Your task to perform on an android device: toggle notifications settings in the gmail app Image 0: 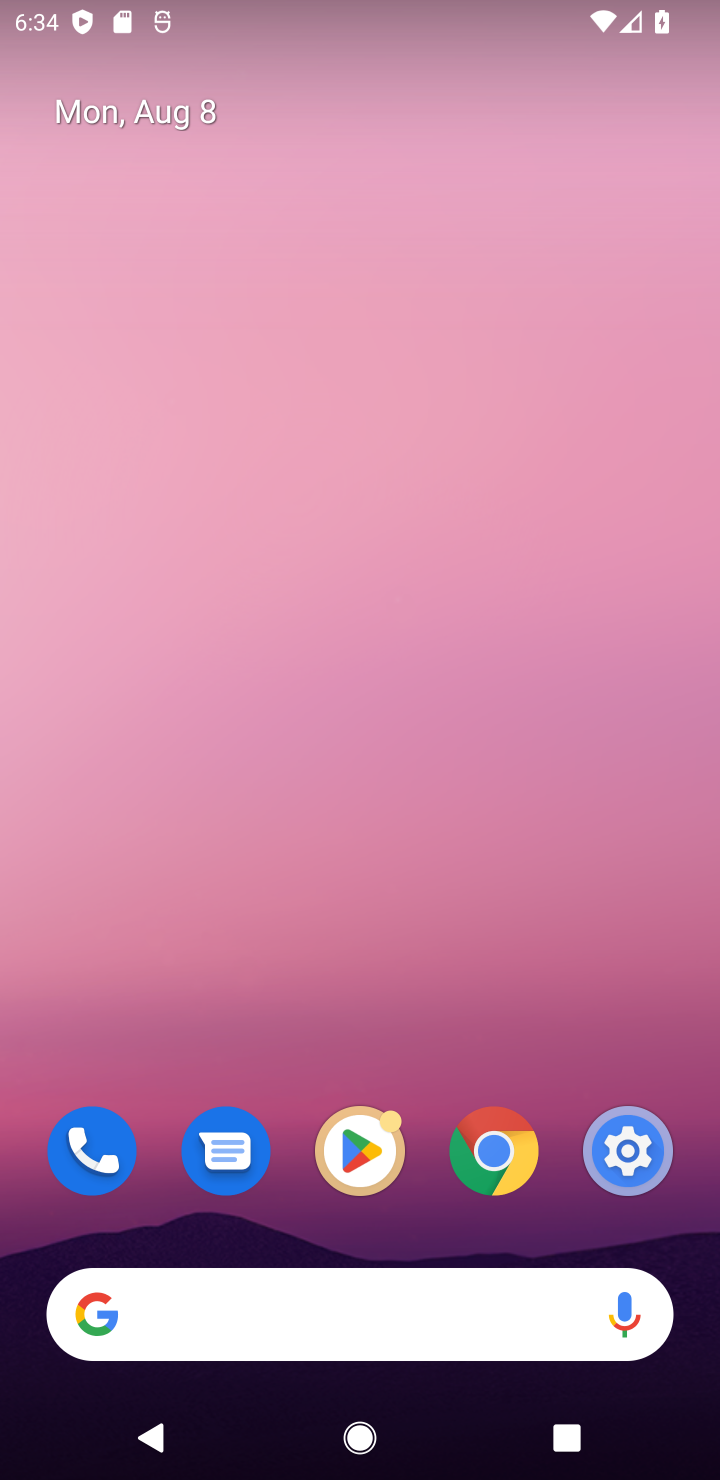
Step 0: drag from (202, 900) to (264, 59)
Your task to perform on an android device: toggle notifications settings in the gmail app Image 1: 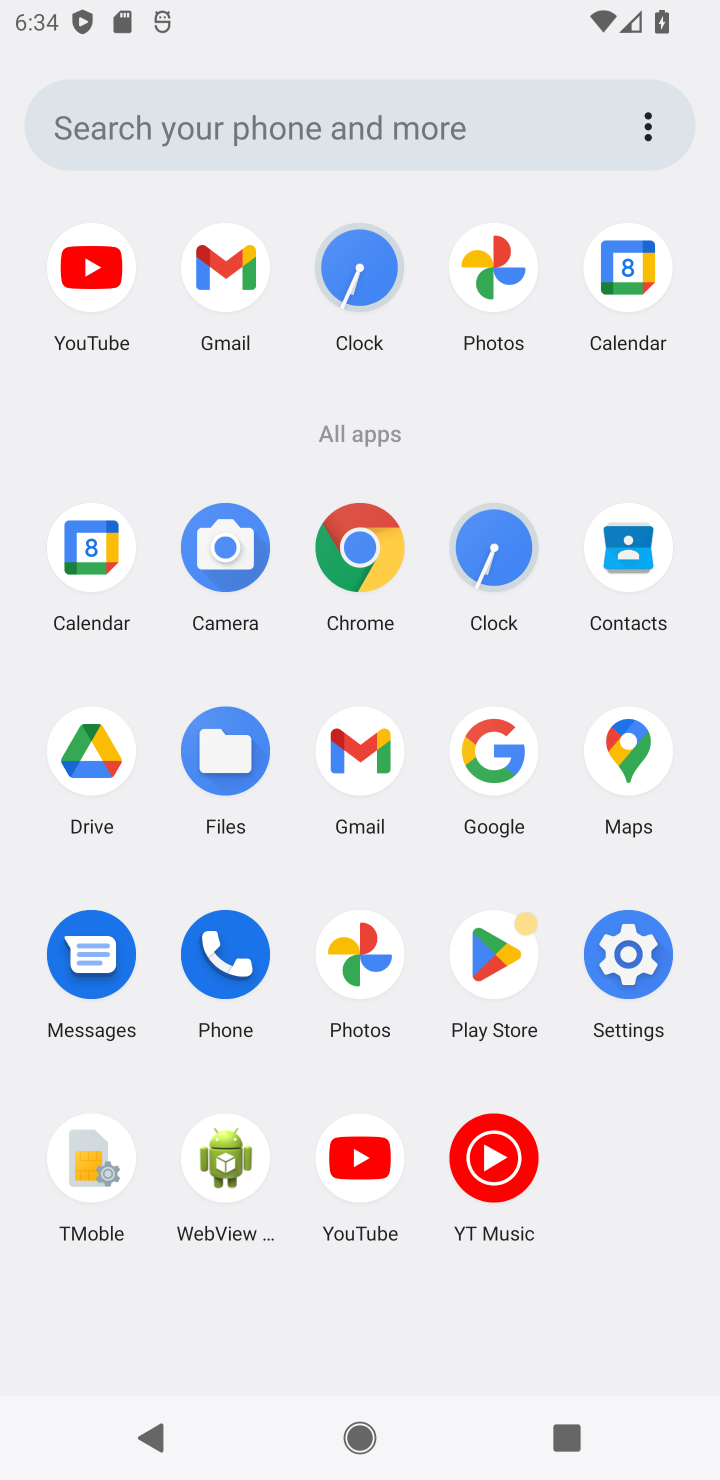
Step 1: click (212, 269)
Your task to perform on an android device: toggle notifications settings in the gmail app Image 2: 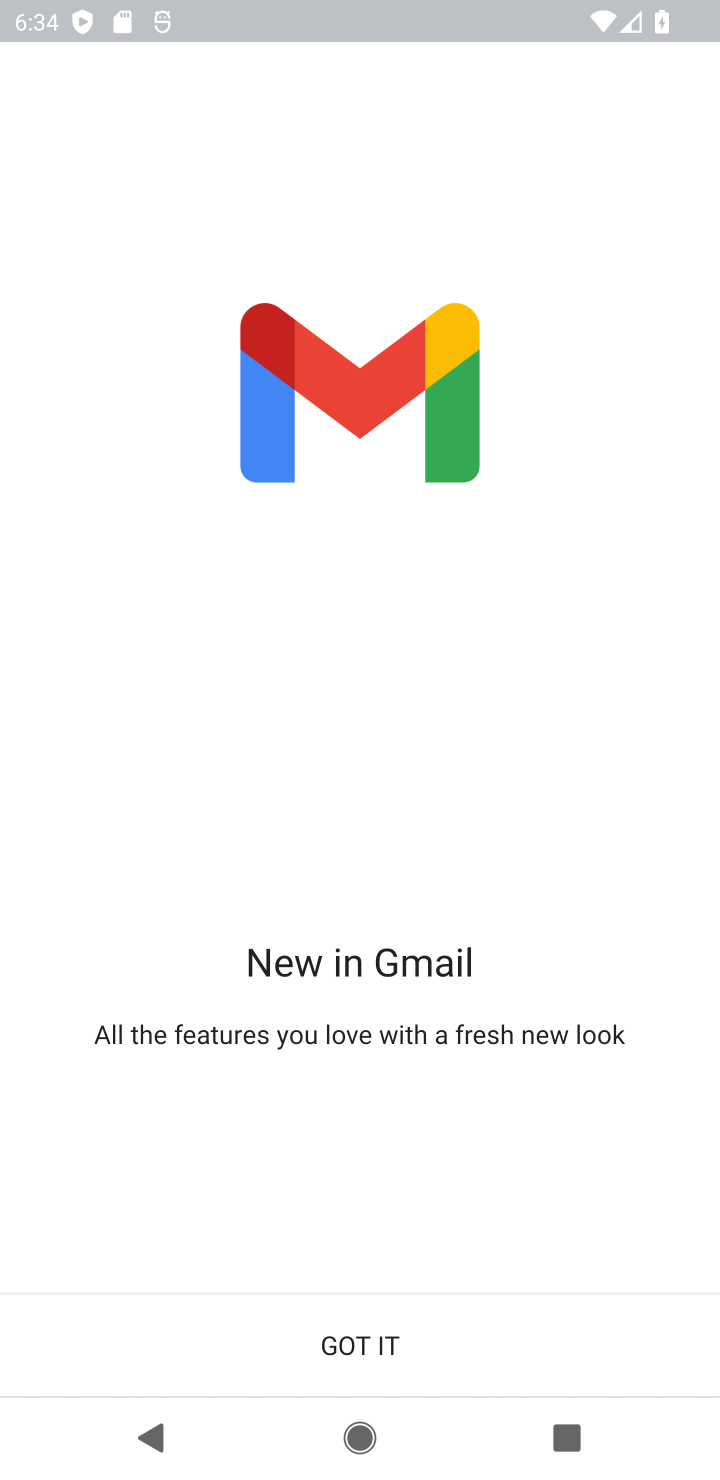
Step 2: click (428, 1369)
Your task to perform on an android device: toggle notifications settings in the gmail app Image 3: 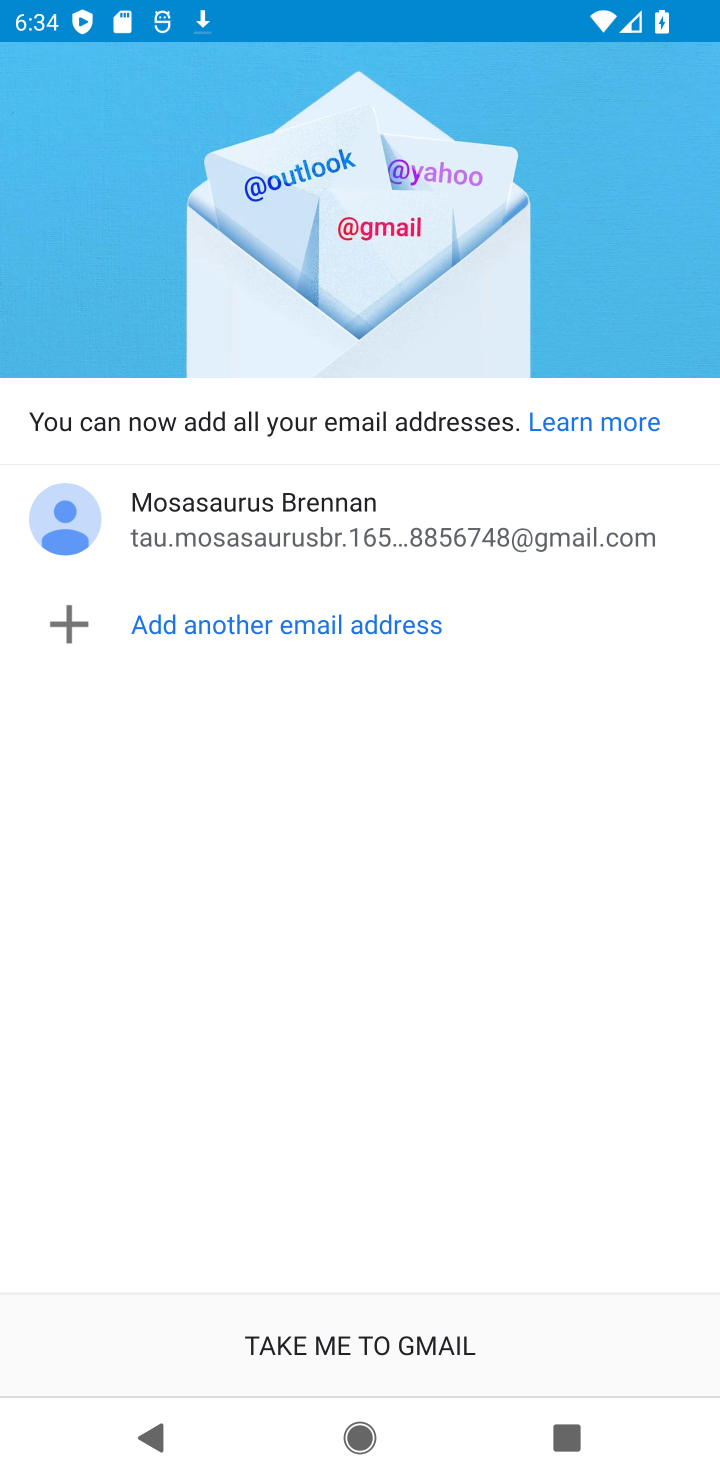
Step 3: click (468, 1361)
Your task to perform on an android device: toggle notifications settings in the gmail app Image 4: 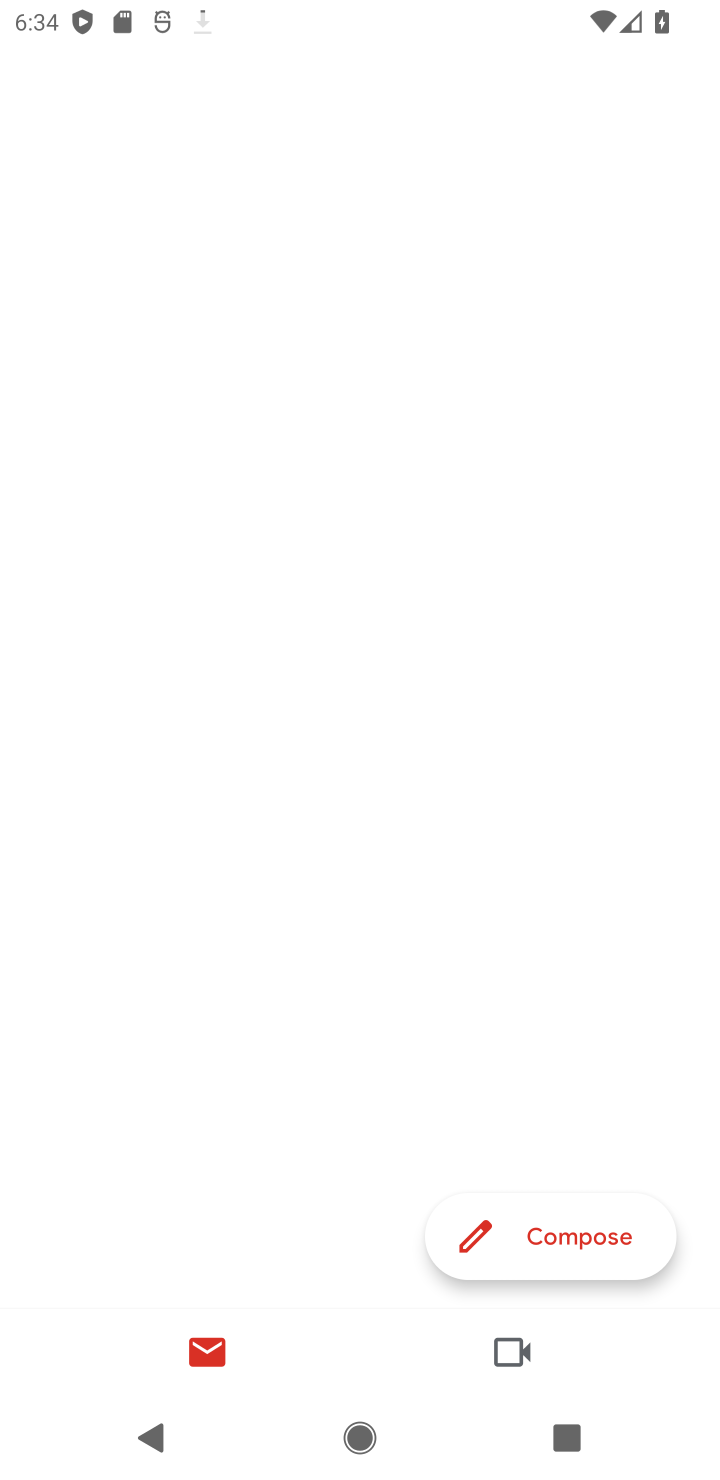
Step 4: click (468, 1361)
Your task to perform on an android device: toggle notifications settings in the gmail app Image 5: 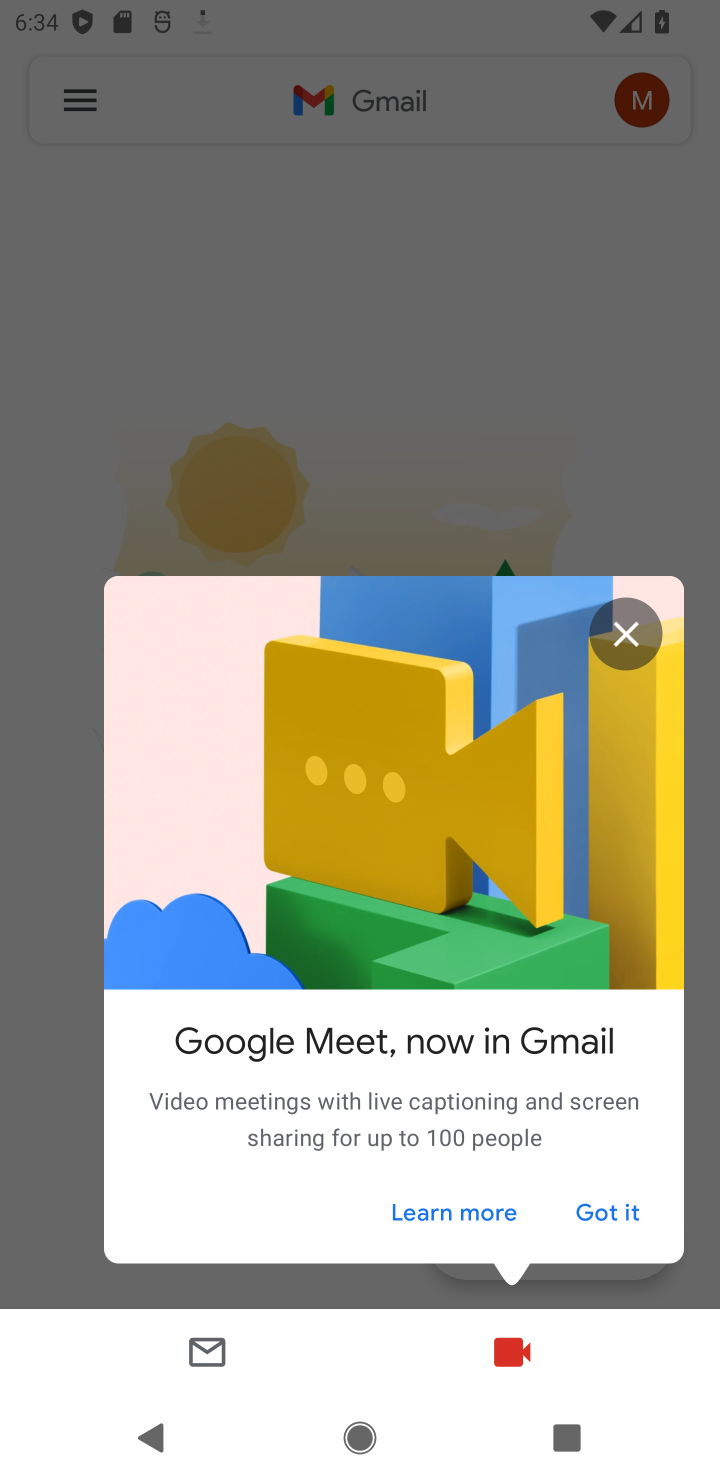
Step 5: click (633, 620)
Your task to perform on an android device: toggle notifications settings in the gmail app Image 6: 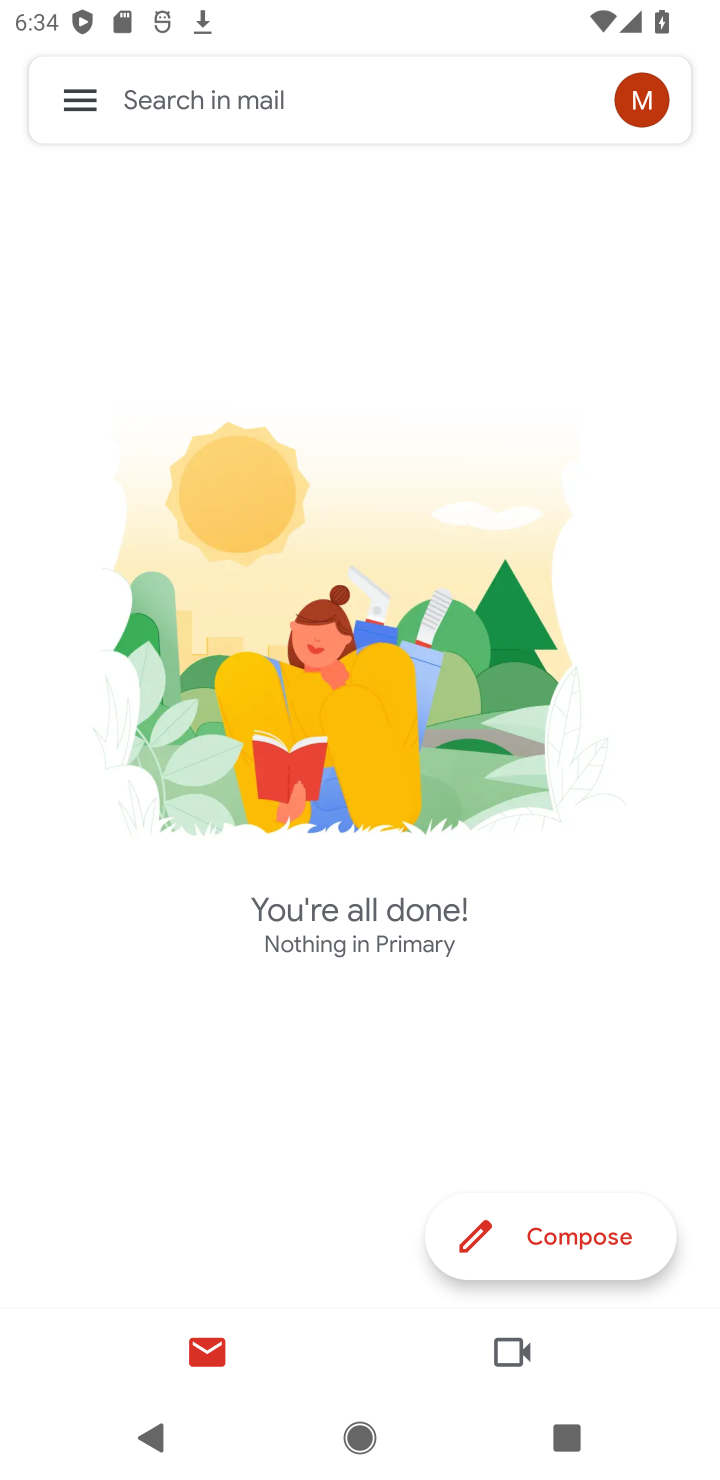
Step 6: click (97, 102)
Your task to perform on an android device: toggle notifications settings in the gmail app Image 7: 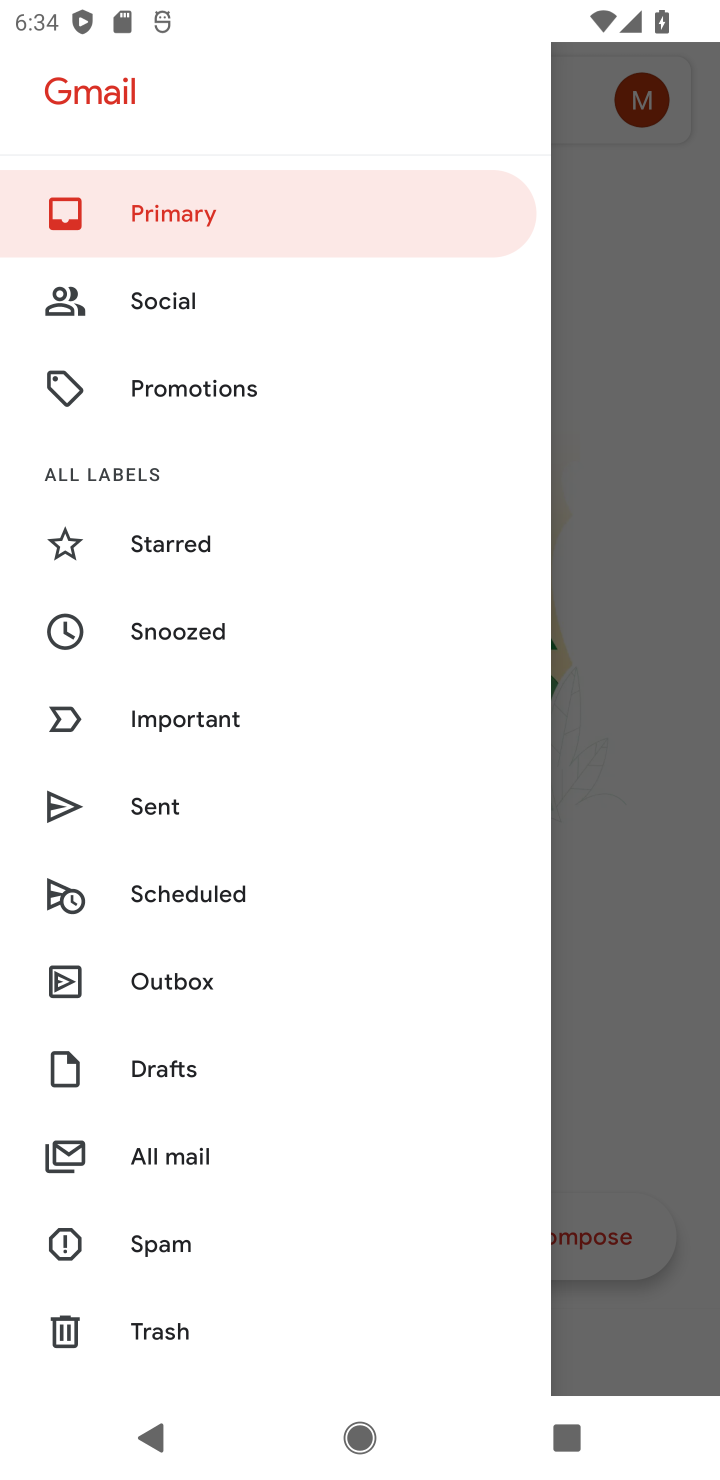
Step 7: drag from (254, 1234) to (183, 130)
Your task to perform on an android device: toggle notifications settings in the gmail app Image 8: 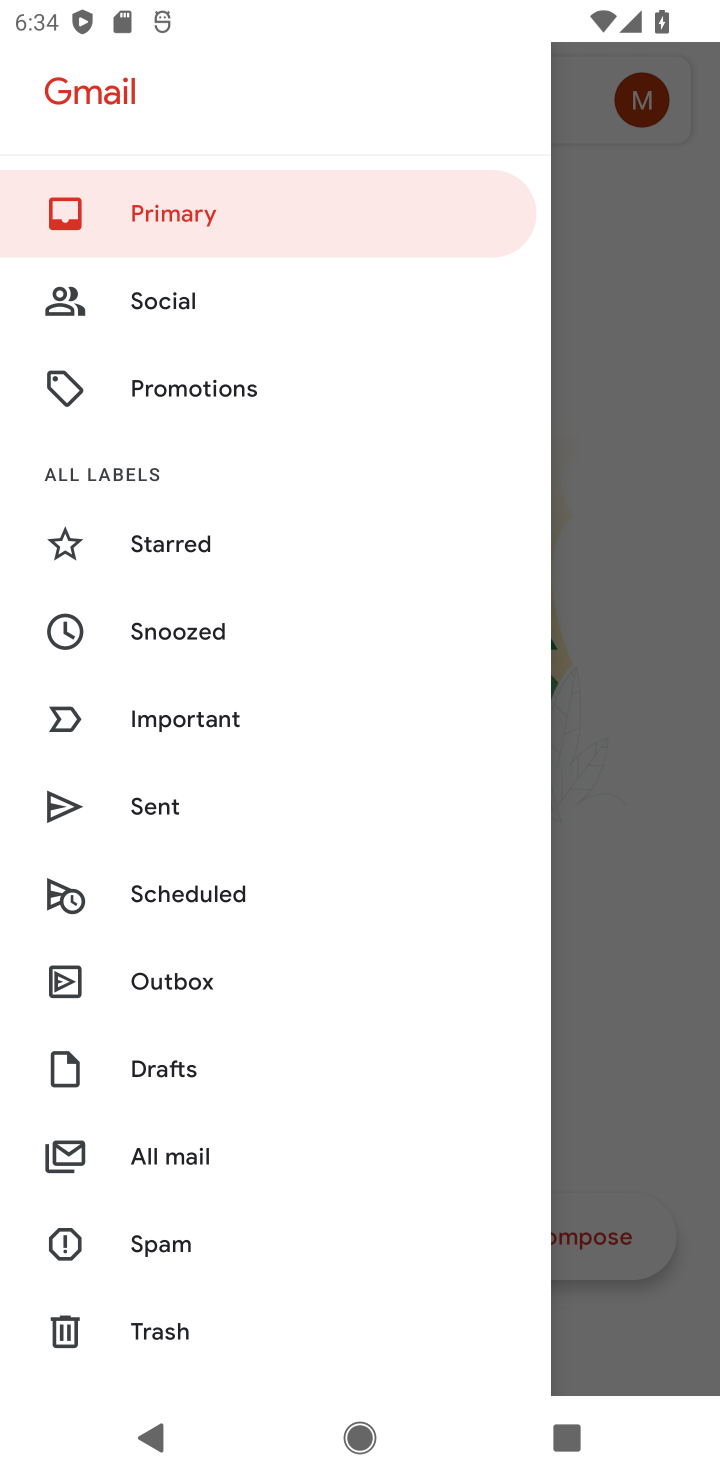
Step 8: drag from (235, 1116) to (236, 263)
Your task to perform on an android device: toggle notifications settings in the gmail app Image 9: 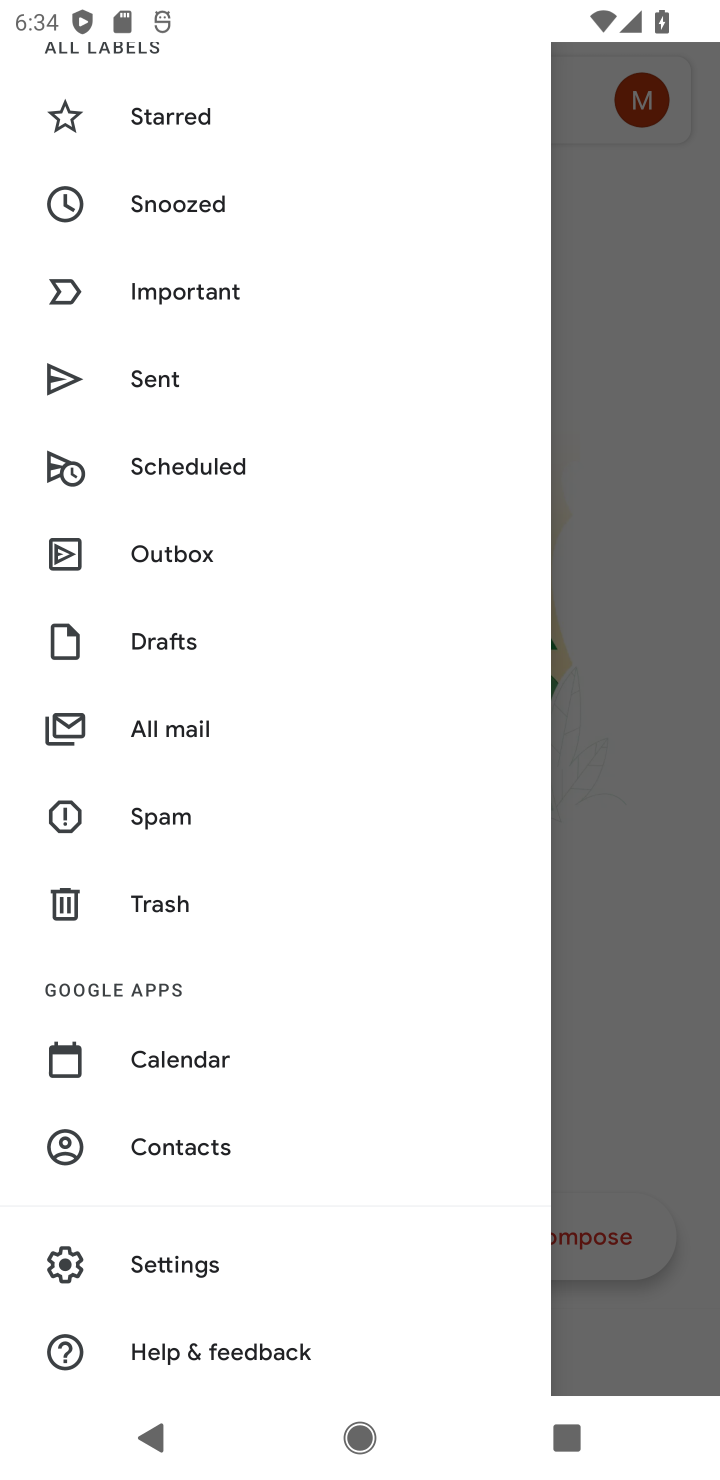
Step 9: click (179, 1268)
Your task to perform on an android device: toggle notifications settings in the gmail app Image 10: 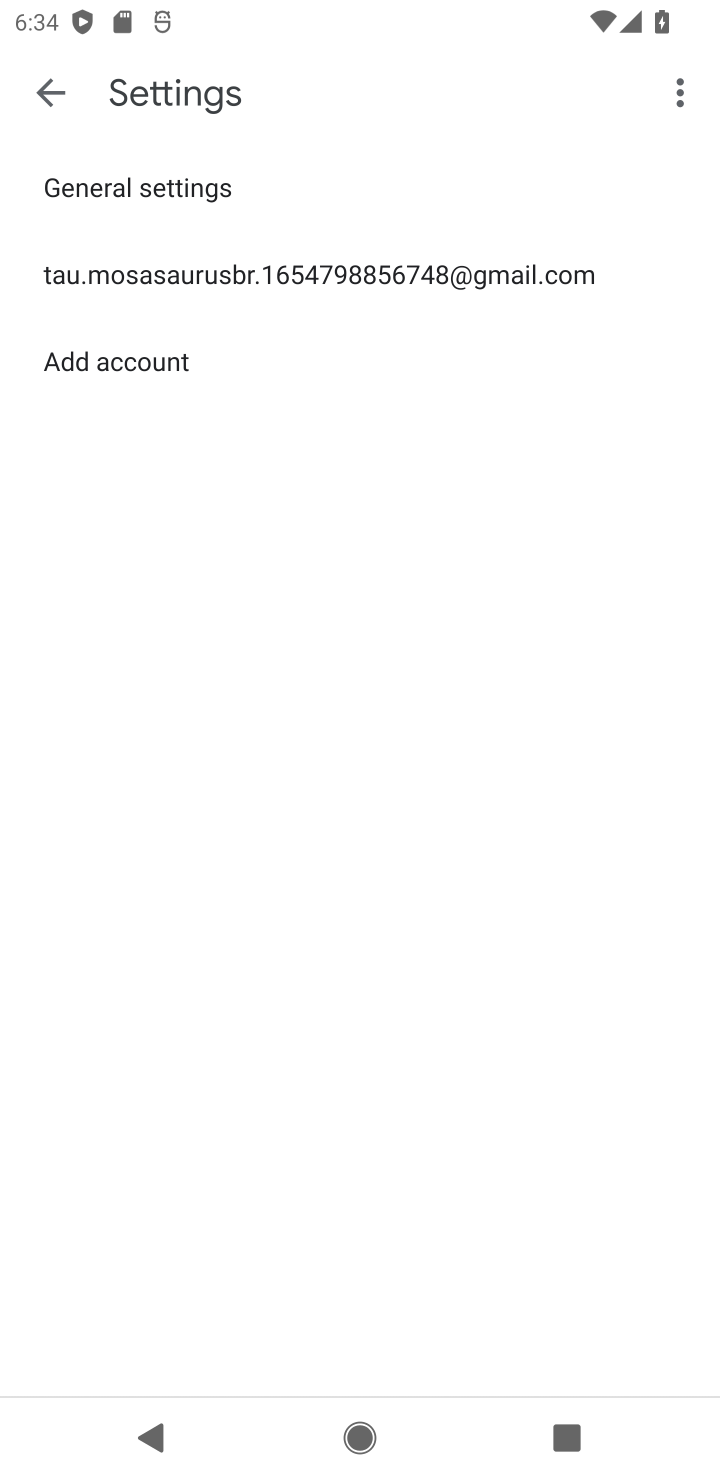
Step 10: click (392, 306)
Your task to perform on an android device: toggle notifications settings in the gmail app Image 11: 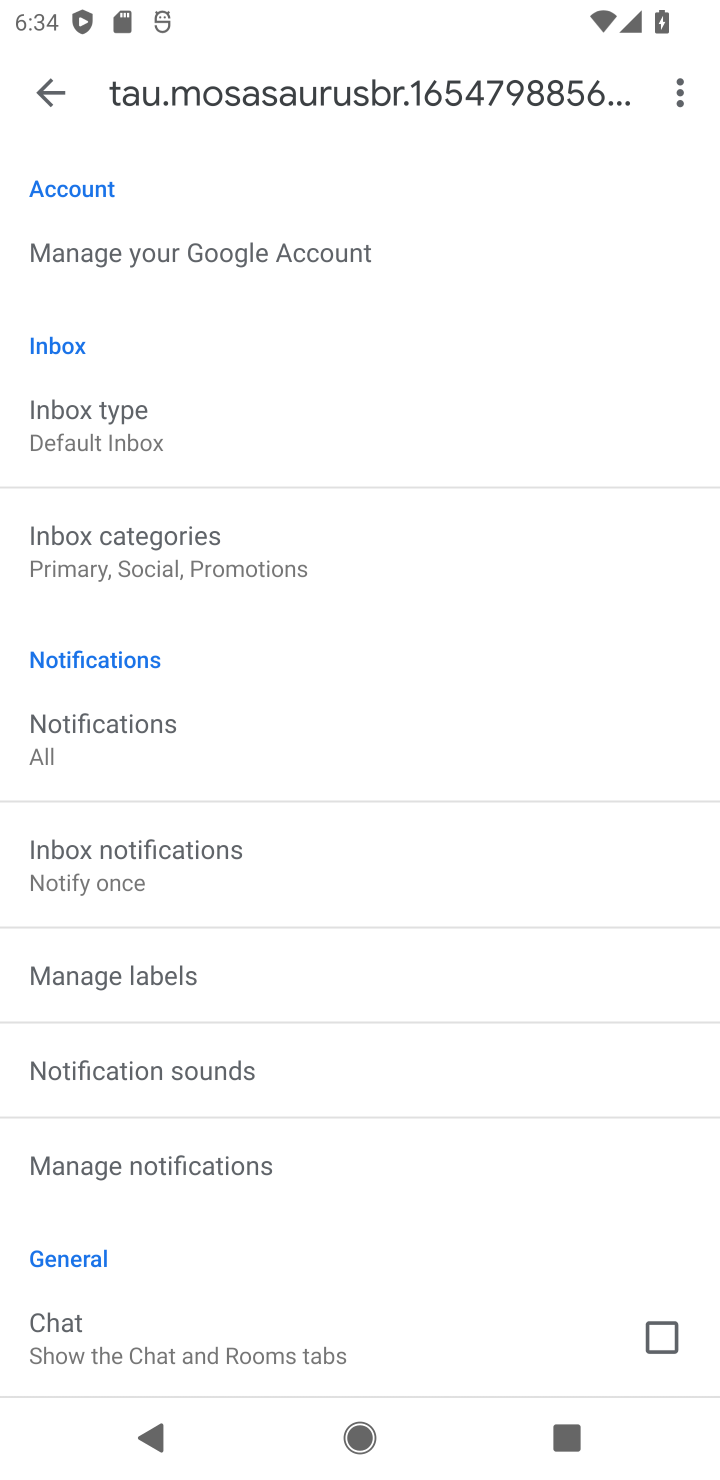
Step 11: click (293, 1142)
Your task to perform on an android device: toggle notifications settings in the gmail app Image 12: 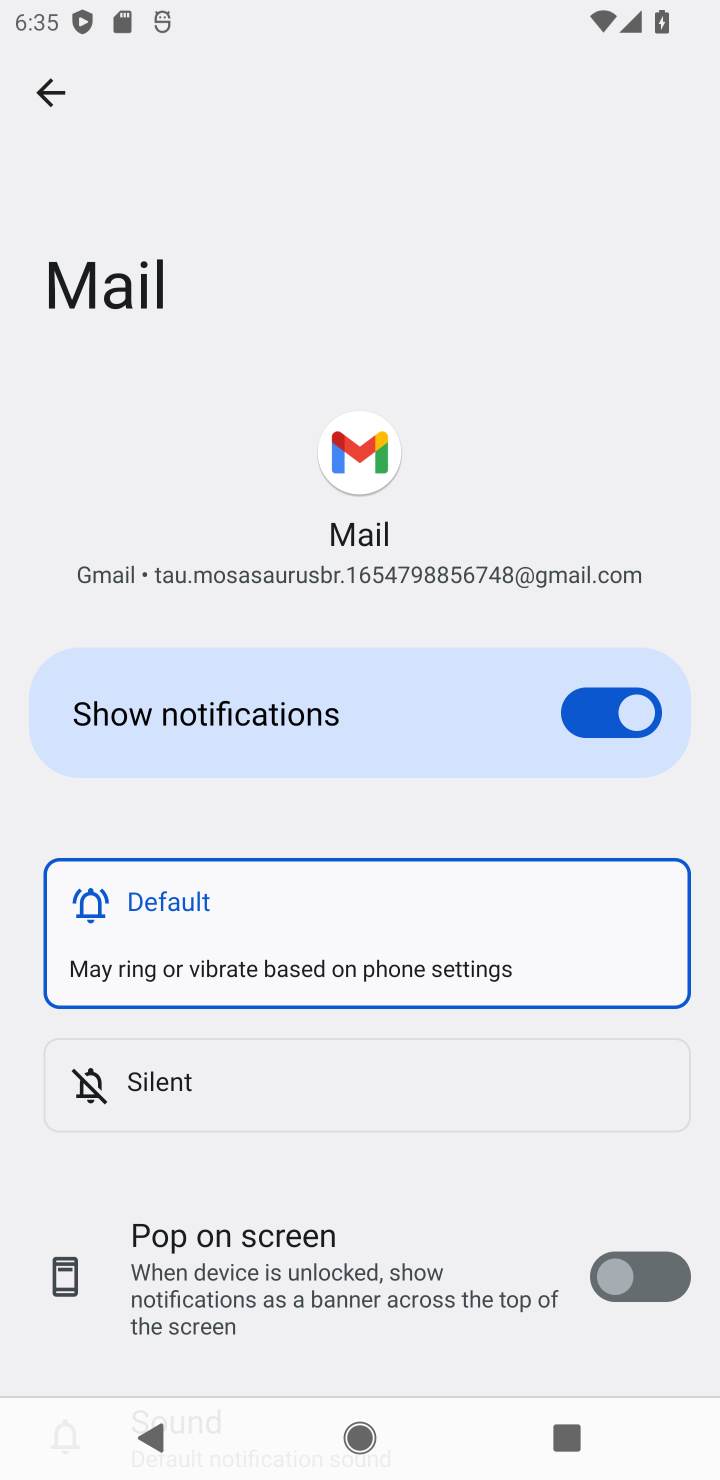
Step 12: click (611, 674)
Your task to perform on an android device: toggle notifications settings in the gmail app Image 13: 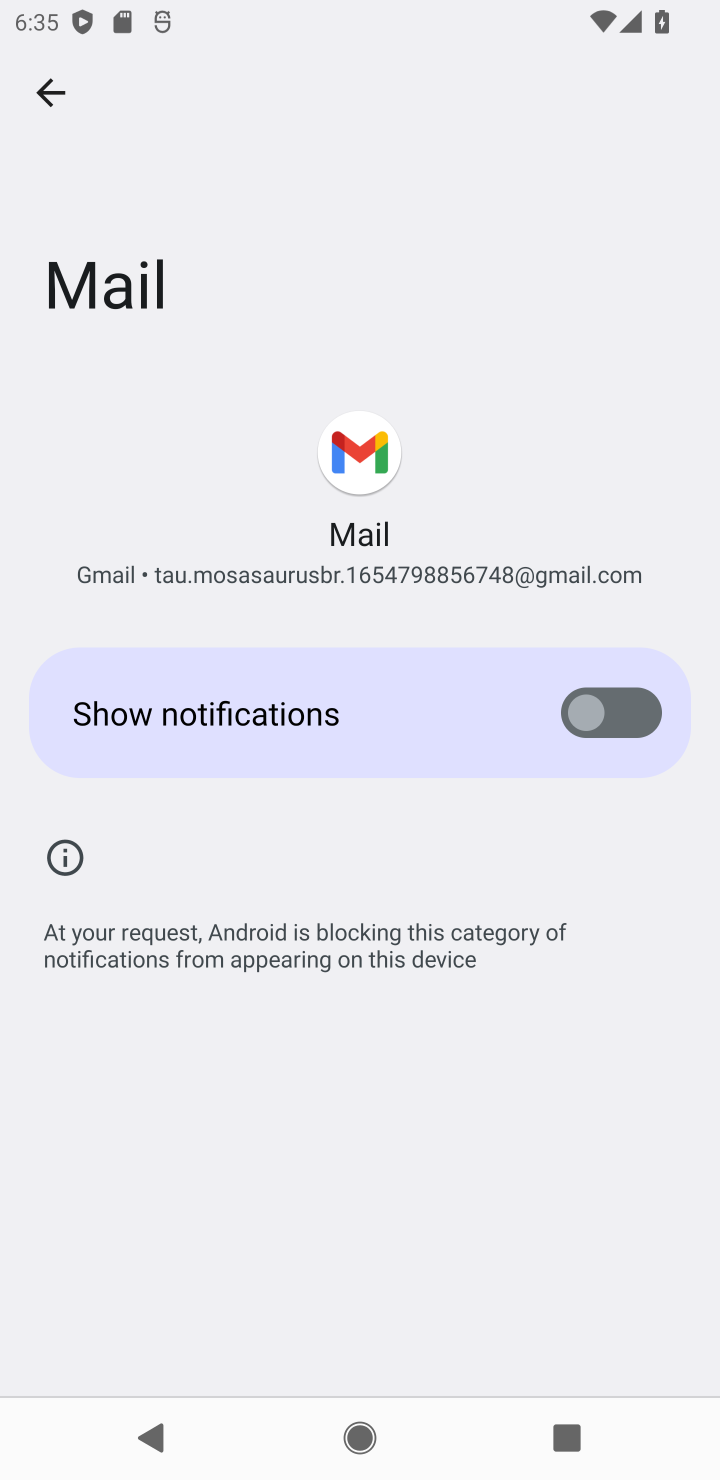
Step 13: task complete